Your task to perform on an android device: Open location settings Image 0: 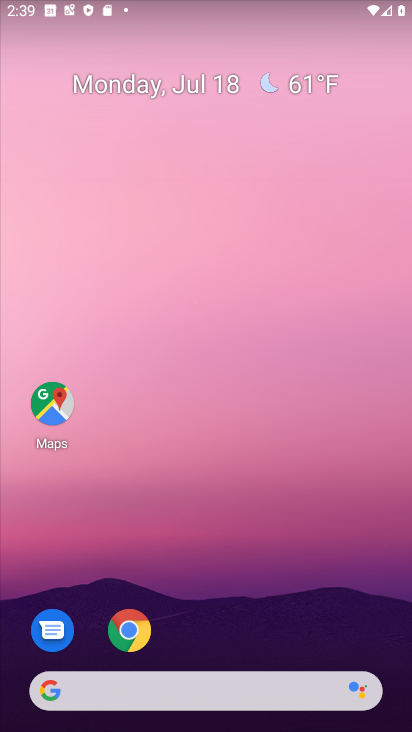
Step 0: drag from (244, 601) to (260, 0)
Your task to perform on an android device: Open location settings Image 1: 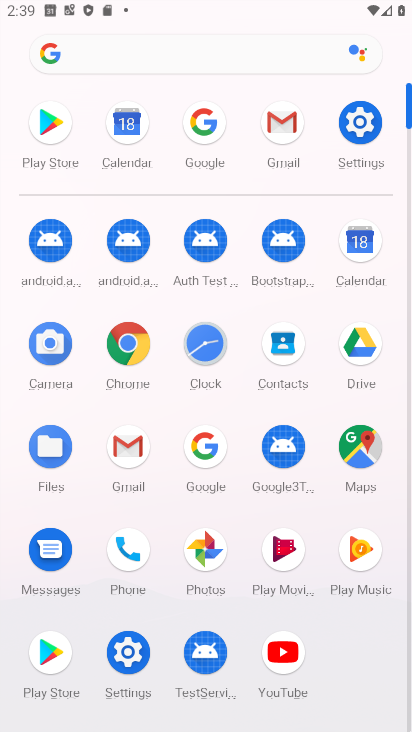
Step 1: click (365, 125)
Your task to perform on an android device: Open location settings Image 2: 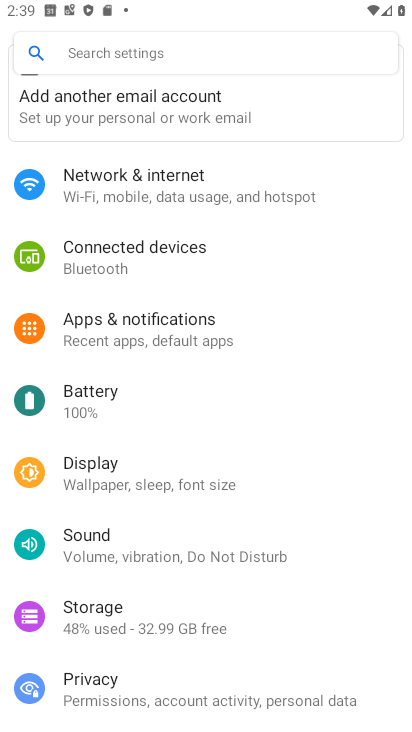
Step 2: drag from (192, 529) to (218, 188)
Your task to perform on an android device: Open location settings Image 3: 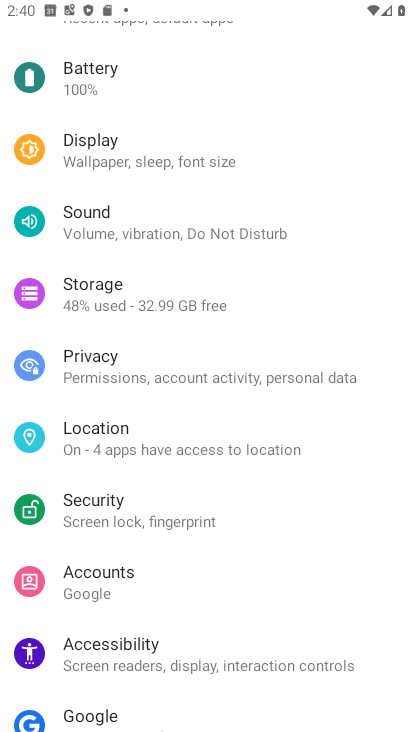
Step 3: click (182, 440)
Your task to perform on an android device: Open location settings Image 4: 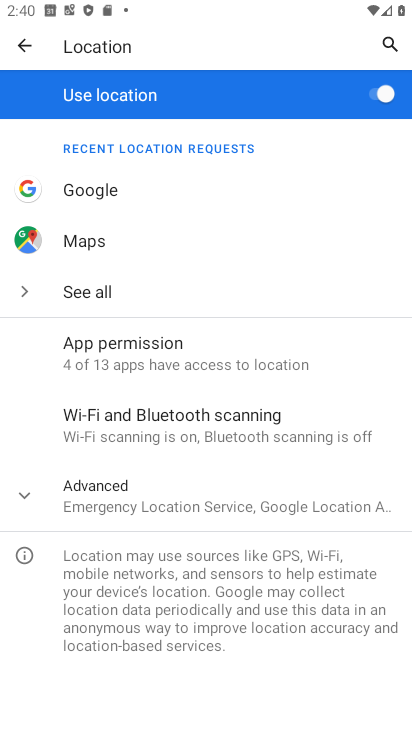
Step 4: task complete